Your task to perform on an android device: toggle notifications settings in the gmail app Image 0: 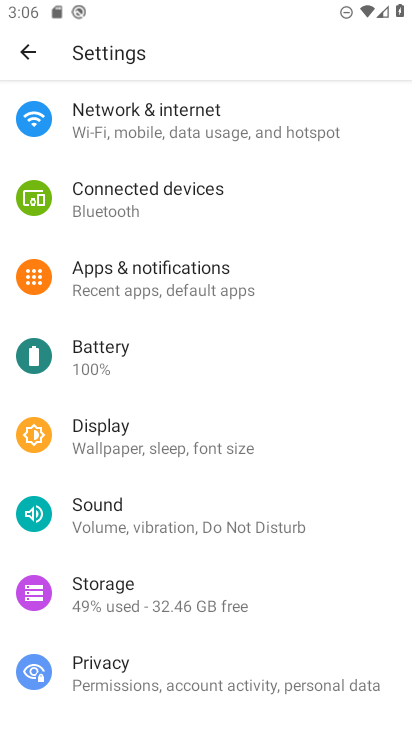
Step 0: click (166, 276)
Your task to perform on an android device: toggle notifications settings in the gmail app Image 1: 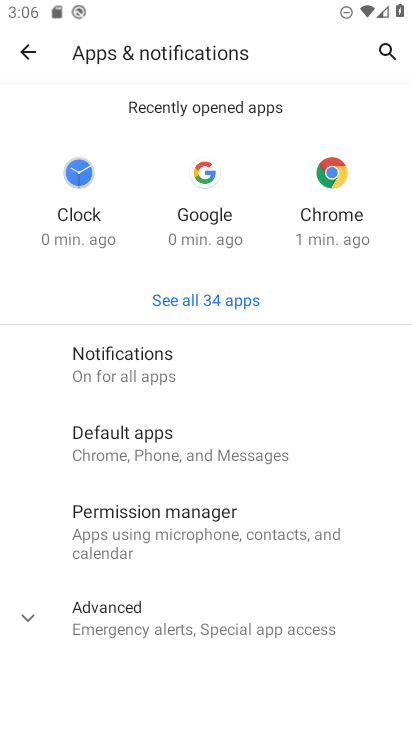
Step 1: press home button
Your task to perform on an android device: toggle notifications settings in the gmail app Image 2: 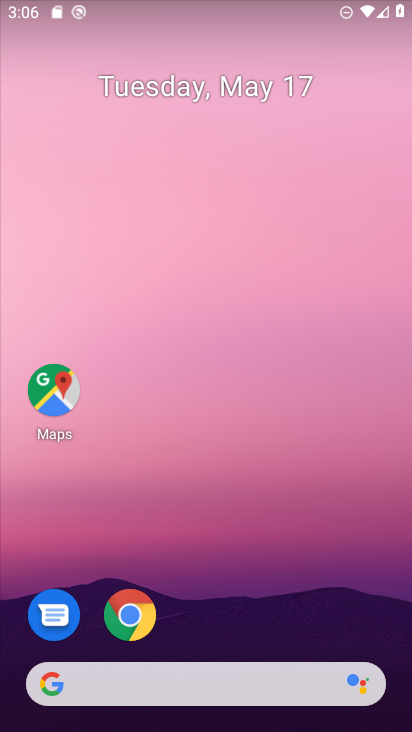
Step 2: drag from (212, 722) to (210, 156)
Your task to perform on an android device: toggle notifications settings in the gmail app Image 3: 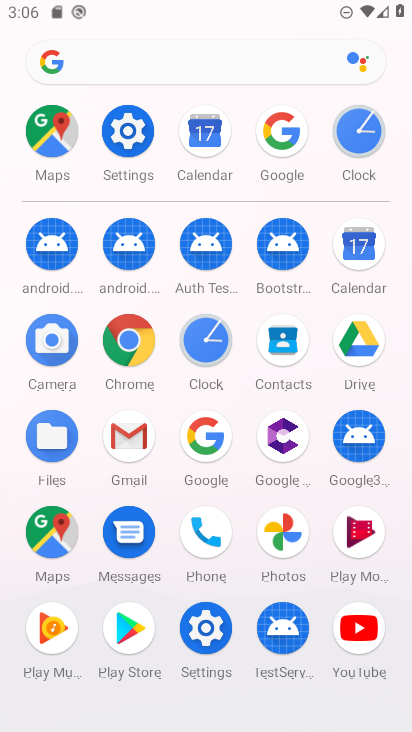
Step 3: click (124, 440)
Your task to perform on an android device: toggle notifications settings in the gmail app Image 4: 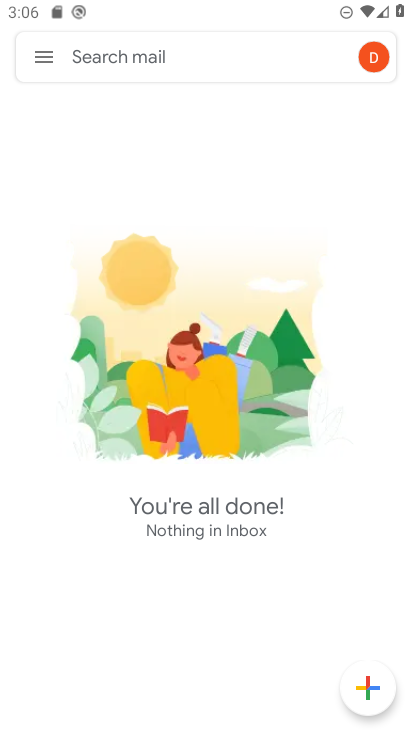
Step 4: click (39, 61)
Your task to perform on an android device: toggle notifications settings in the gmail app Image 5: 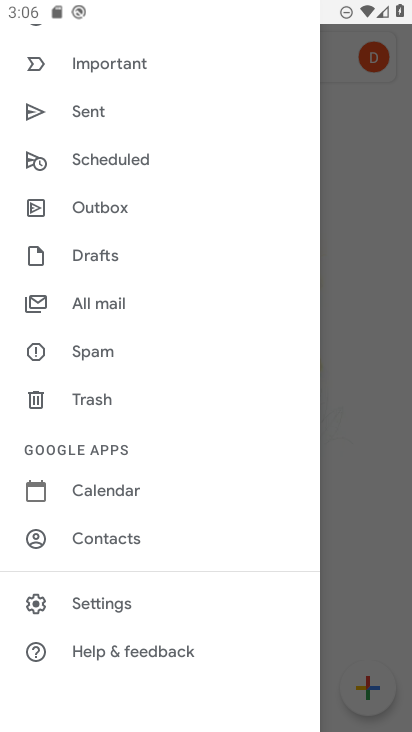
Step 5: click (89, 599)
Your task to perform on an android device: toggle notifications settings in the gmail app Image 6: 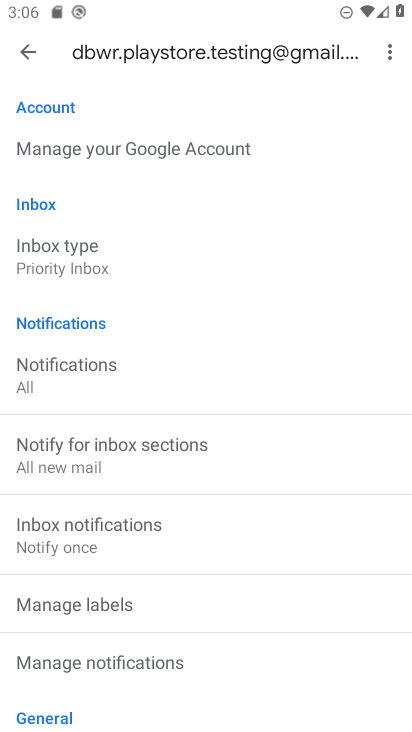
Step 6: drag from (148, 234) to (157, 347)
Your task to perform on an android device: toggle notifications settings in the gmail app Image 7: 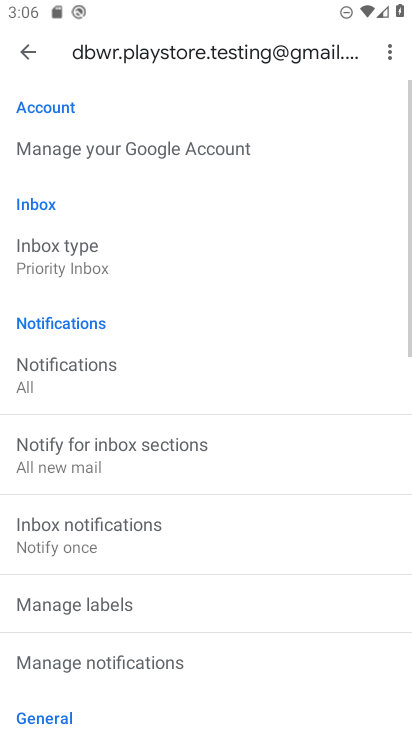
Step 7: click (67, 367)
Your task to perform on an android device: toggle notifications settings in the gmail app Image 8: 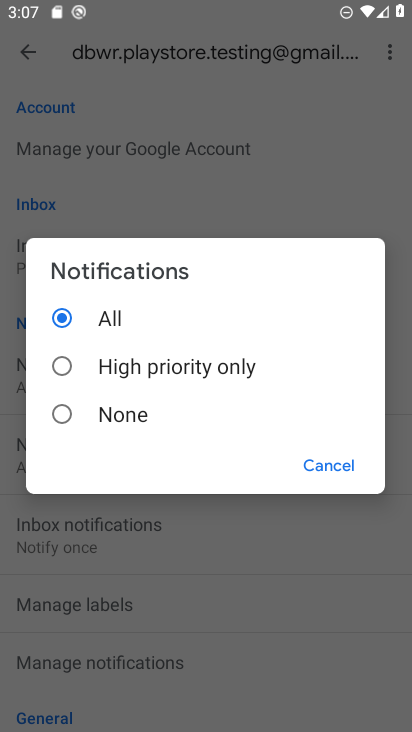
Step 8: click (56, 404)
Your task to perform on an android device: toggle notifications settings in the gmail app Image 9: 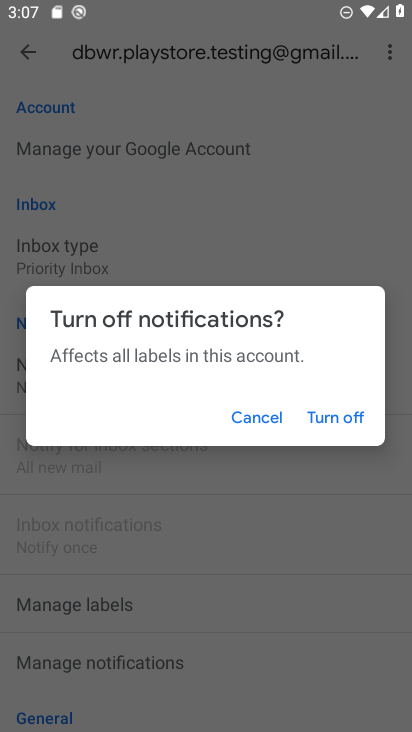
Step 9: click (329, 412)
Your task to perform on an android device: toggle notifications settings in the gmail app Image 10: 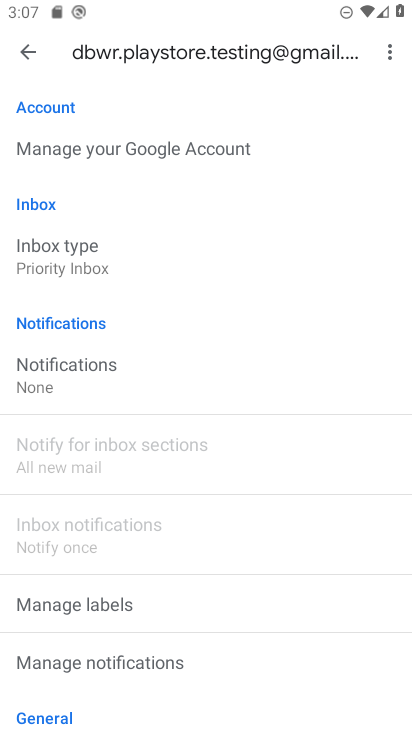
Step 10: task complete